Your task to perform on an android device: Search for the best books of all time on Goodreads Image 0: 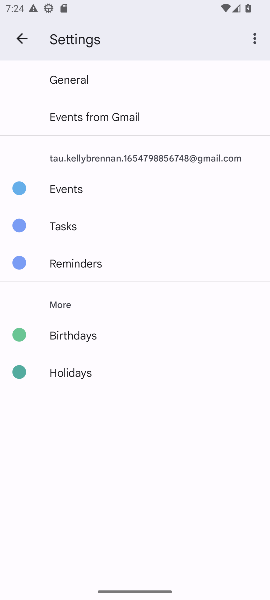
Step 0: press home button
Your task to perform on an android device: Search for the best books of all time on Goodreads Image 1: 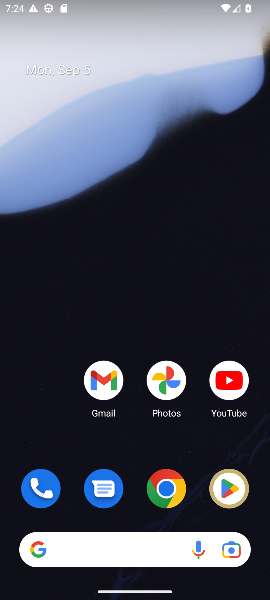
Step 1: click (265, 370)
Your task to perform on an android device: Search for the best books of all time on Goodreads Image 2: 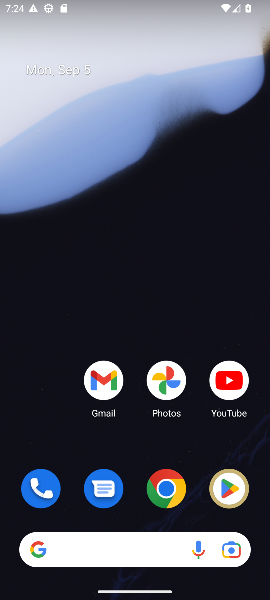
Step 2: click (174, 498)
Your task to perform on an android device: Search for the best books of all time on Goodreads Image 3: 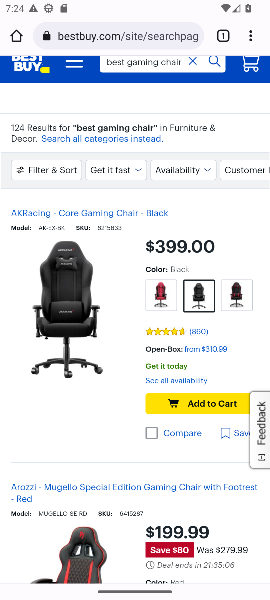
Step 3: click (148, 40)
Your task to perform on an android device: Search for the best books of all time on Goodreads Image 4: 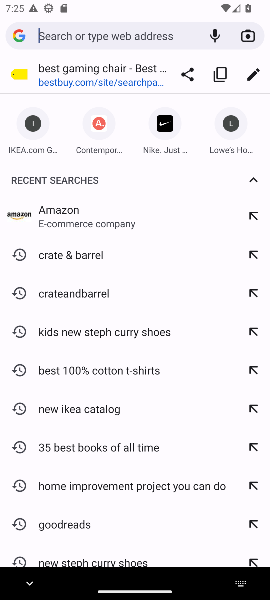
Step 4: type "goodreads"
Your task to perform on an android device: Search for the best books of all time on Goodreads Image 5: 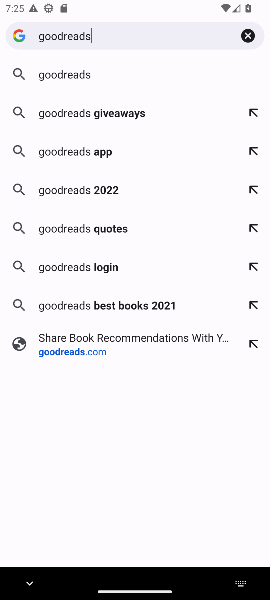
Step 5: press enter
Your task to perform on an android device: Search for the best books of all time on Goodreads Image 6: 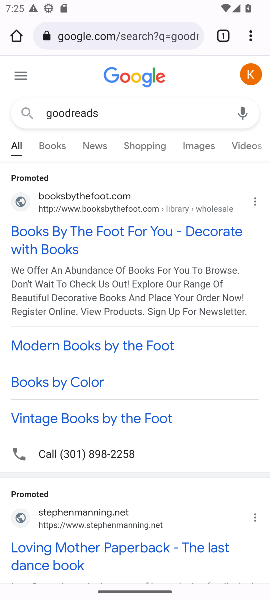
Step 6: drag from (210, 489) to (219, 210)
Your task to perform on an android device: Search for the best books of all time on Goodreads Image 7: 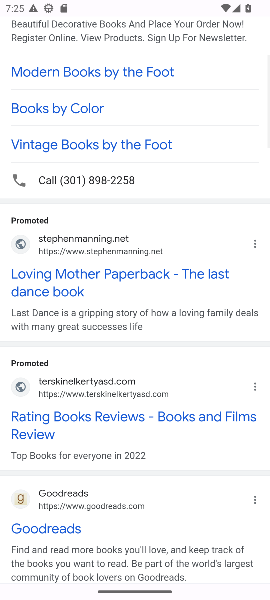
Step 7: click (58, 534)
Your task to perform on an android device: Search for the best books of all time on Goodreads Image 8: 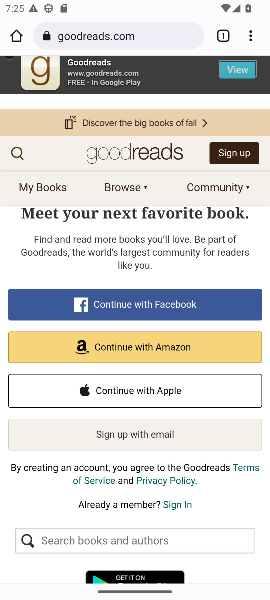
Step 8: click (87, 540)
Your task to perform on an android device: Search for the best books of all time on Goodreads Image 9: 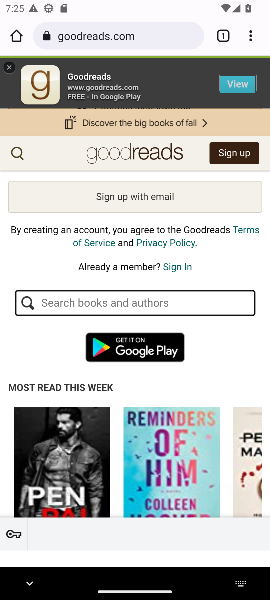
Step 9: type "best books of all time"
Your task to perform on an android device: Search for the best books of all time on Goodreads Image 10: 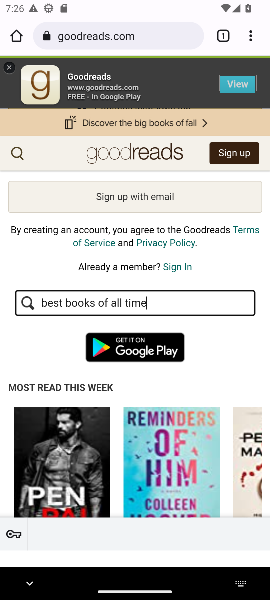
Step 10: press enter
Your task to perform on an android device: Search for the best books of all time on Goodreads Image 11: 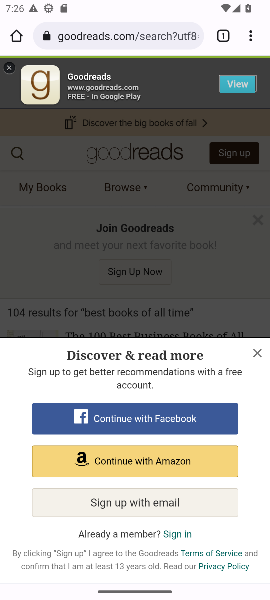
Step 11: click (256, 350)
Your task to perform on an android device: Search for the best books of all time on Goodreads Image 12: 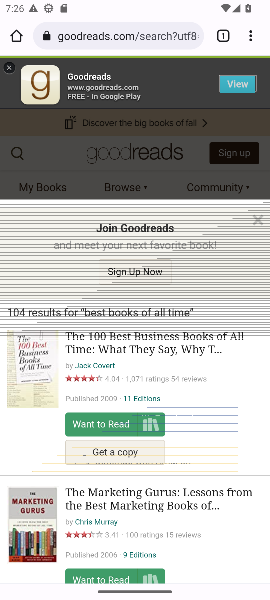
Step 12: task complete